Your task to perform on an android device: check the backup settings in the google photos Image 0: 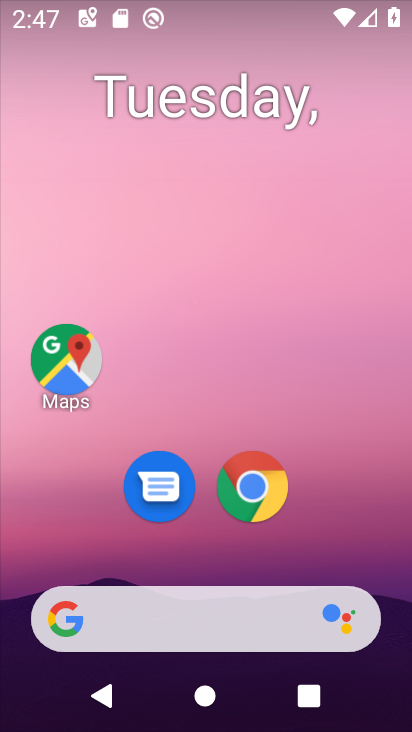
Step 0: press home button
Your task to perform on an android device: check the backup settings in the google photos Image 1: 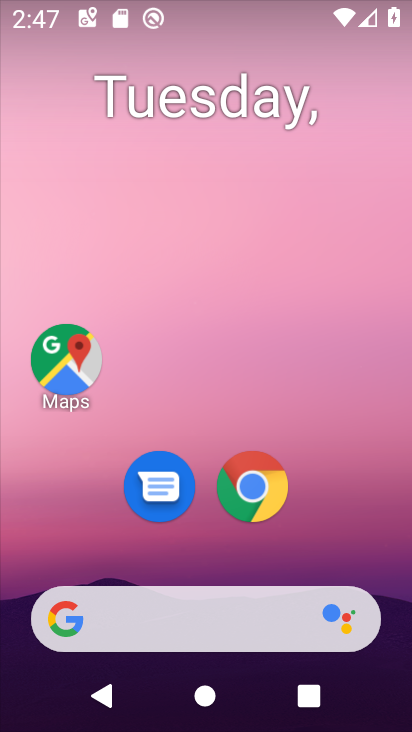
Step 1: drag from (212, 560) to (219, 160)
Your task to perform on an android device: check the backup settings in the google photos Image 2: 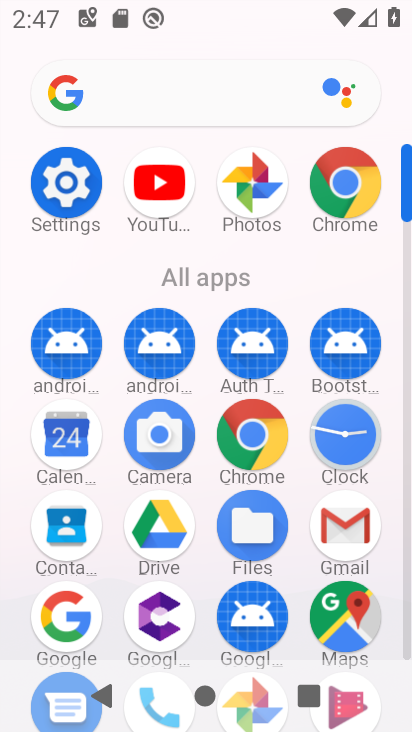
Step 2: click (249, 176)
Your task to perform on an android device: check the backup settings in the google photos Image 3: 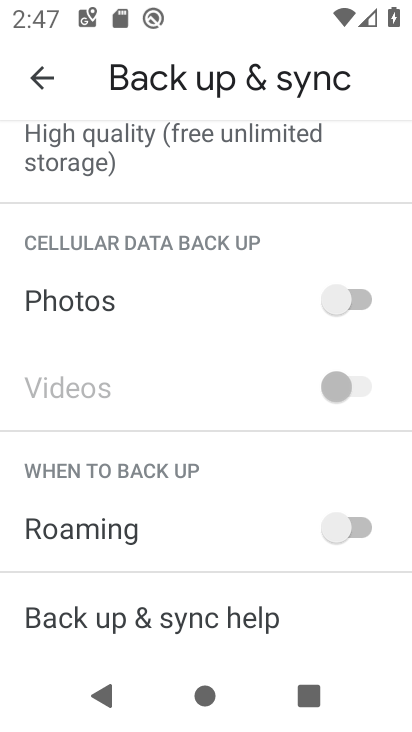
Step 3: task complete